Your task to perform on an android device: find which apps use the phone's location Image 0: 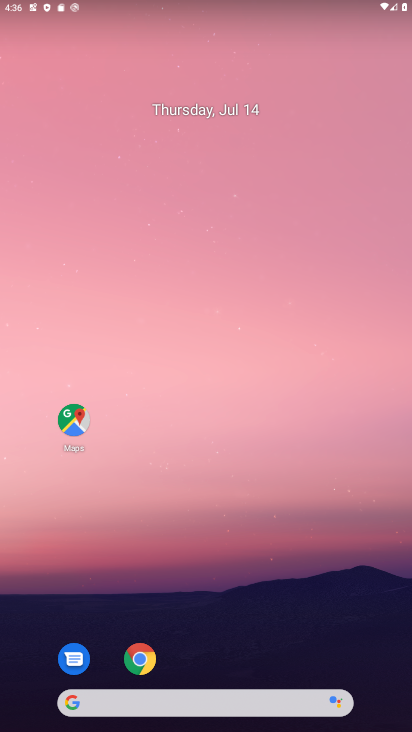
Step 0: drag from (212, 666) to (216, 81)
Your task to perform on an android device: find which apps use the phone's location Image 1: 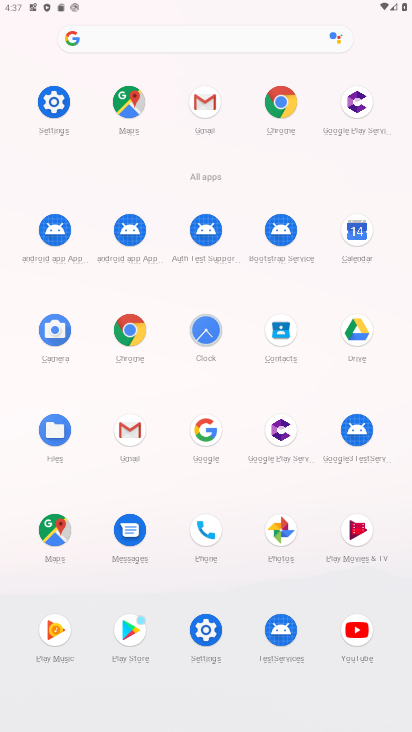
Step 1: click (53, 100)
Your task to perform on an android device: find which apps use the phone's location Image 2: 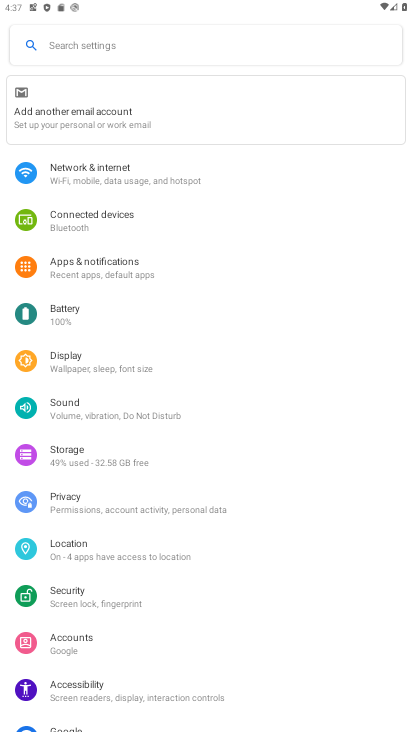
Step 2: click (100, 545)
Your task to perform on an android device: find which apps use the phone's location Image 3: 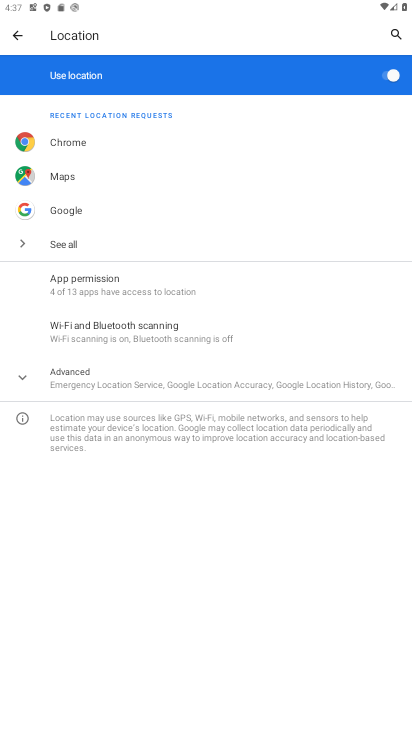
Step 3: click (85, 284)
Your task to perform on an android device: find which apps use the phone's location Image 4: 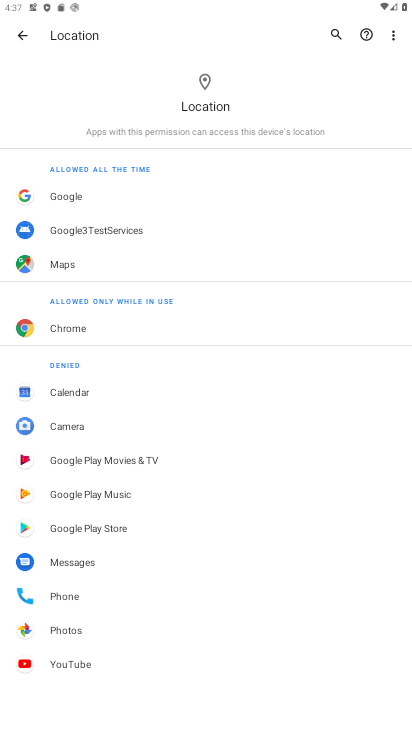
Step 4: task complete